Your task to perform on an android device: How much does a 2 bedroom apartment rent for in Houston? Image 0: 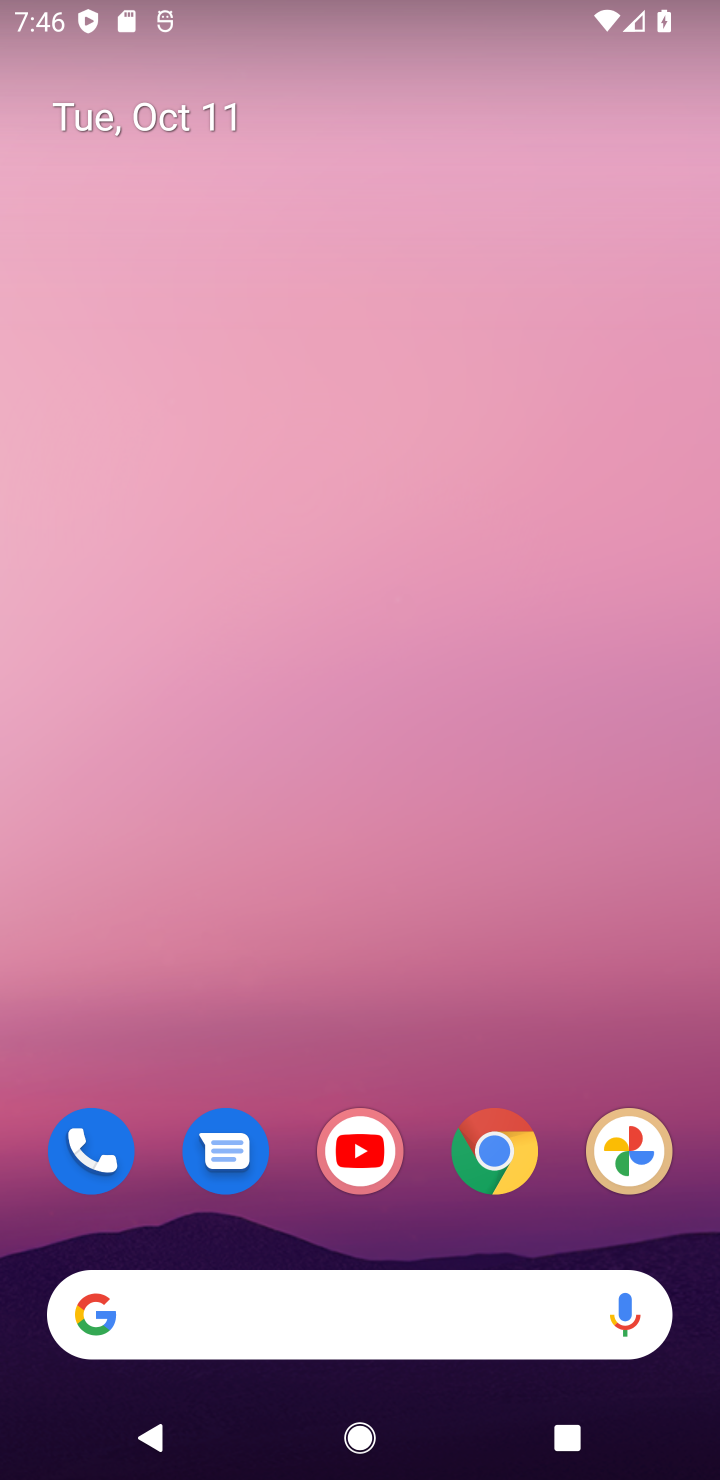
Step 0: task complete